Your task to perform on an android device: see creations saved in the google photos Image 0: 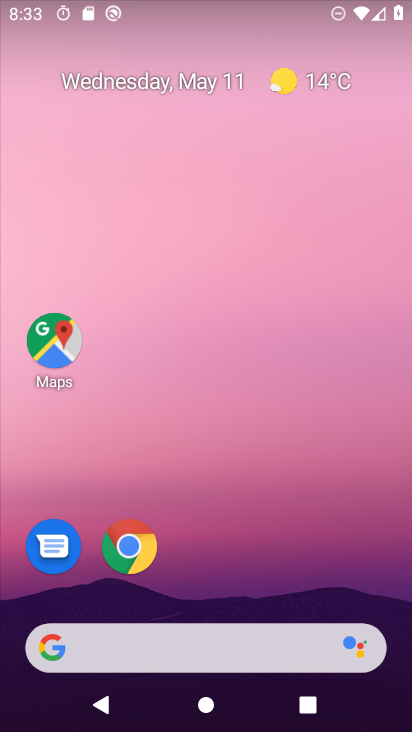
Step 0: drag from (220, 607) to (189, 137)
Your task to perform on an android device: see creations saved in the google photos Image 1: 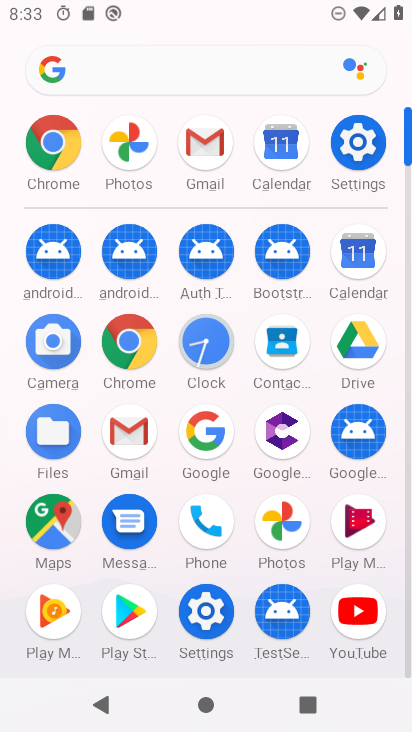
Step 1: click (267, 534)
Your task to perform on an android device: see creations saved in the google photos Image 2: 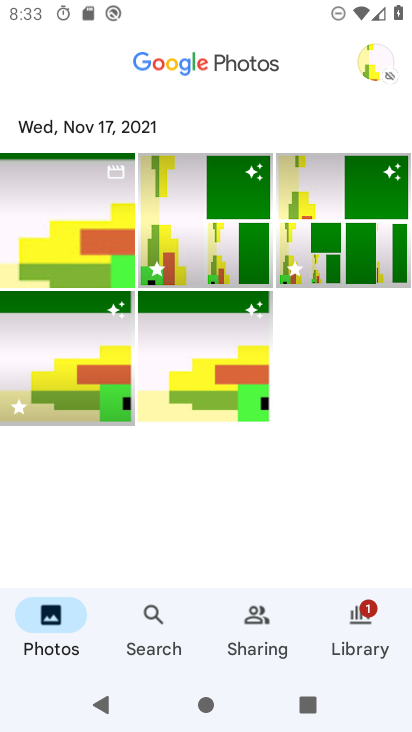
Step 2: click (363, 639)
Your task to perform on an android device: see creations saved in the google photos Image 3: 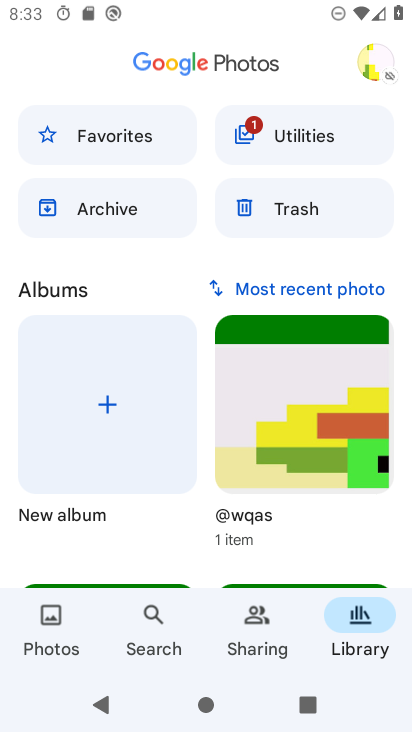
Step 3: task complete